Your task to perform on an android device: turn on the 24-hour format for clock Image 0: 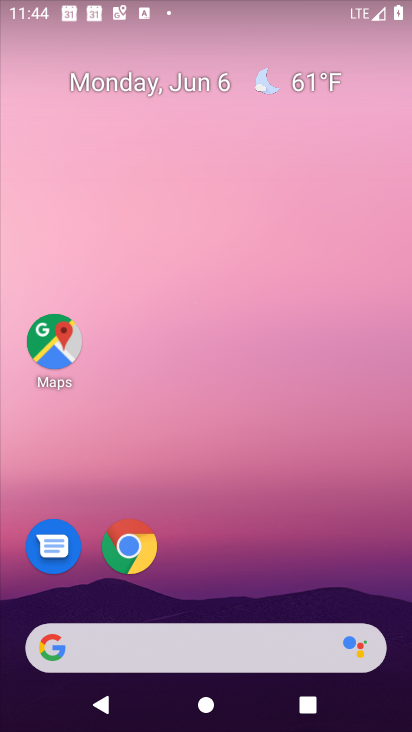
Step 0: drag from (382, 598) to (350, 80)
Your task to perform on an android device: turn on the 24-hour format for clock Image 1: 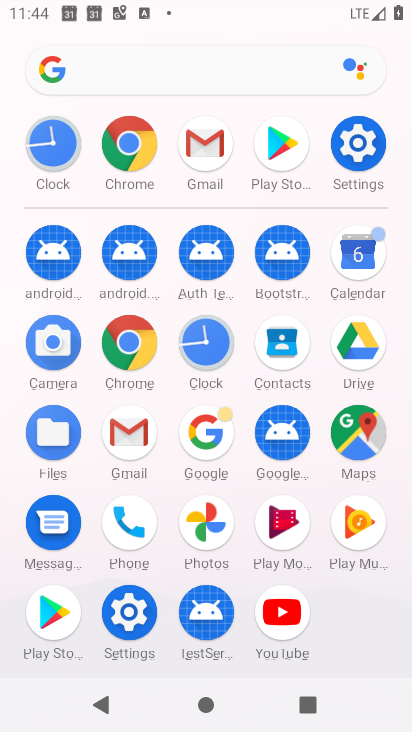
Step 1: click (204, 339)
Your task to perform on an android device: turn on the 24-hour format for clock Image 2: 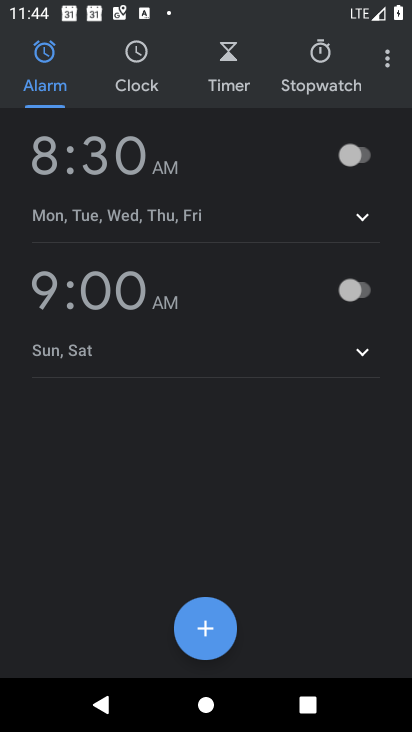
Step 2: click (386, 63)
Your task to perform on an android device: turn on the 24-hour format for clock Image 3: 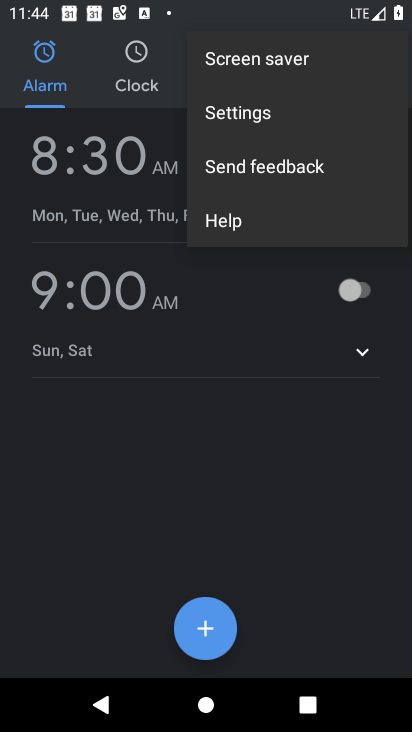
Step 3: click (252, 119)
Your task to perform on an android device: turn on the 24-hour format for clock Image 4: 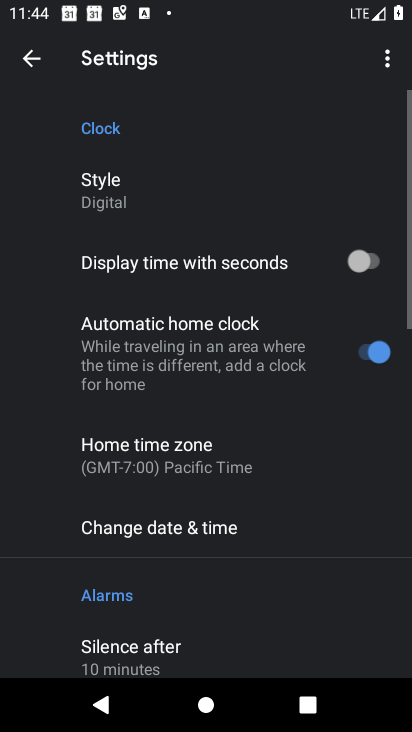
Step 4: click (287, 532)
Your task to perform on an android device: turn on the 24-hour format for clock Image 5: 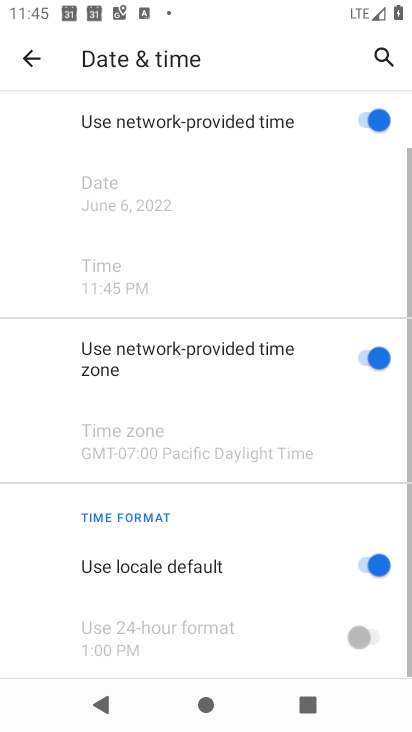
Step 5: drag from (287, 532) to (238, 151)
Your task to perform on an android device: turn on the 24-hour format for clock Image 6: 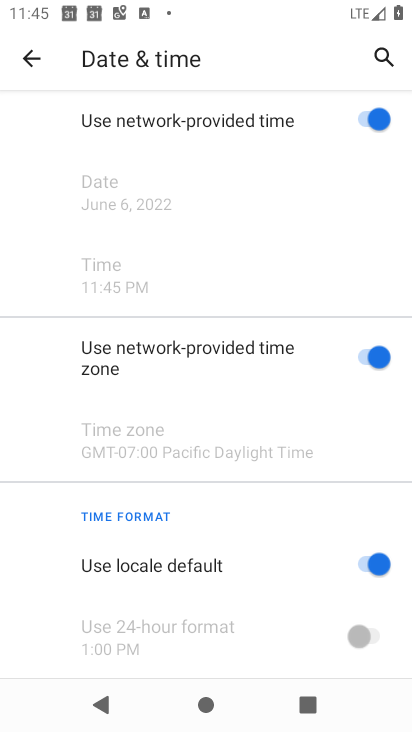
Step 6: click (362, 556)
Your task to perform on an android device: turn on the 24-hour format for clock Image 7: 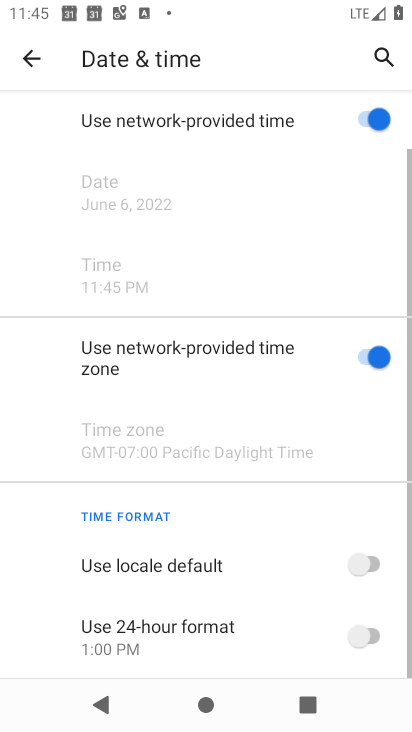
Step 7: click (370, 631)
Your task to perform on an android device: turn on the 24-hour format for clock Image 8: 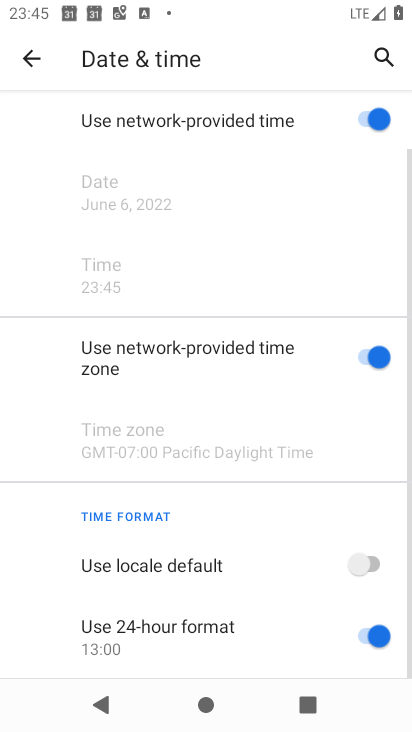
Step 8: task complete